Your task to perform on an android device: Open calendar and show me the fourth week of next month Image 0: 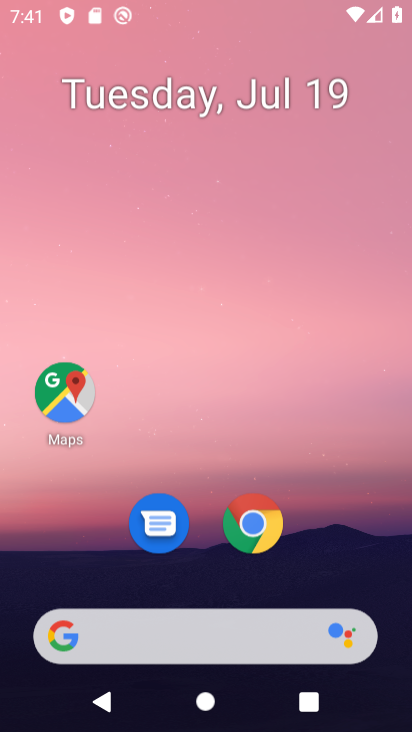
Step 0: click (161, 649)
Your task to perform on an android device: Open calendar and show me the fourth week of next month Image 1: 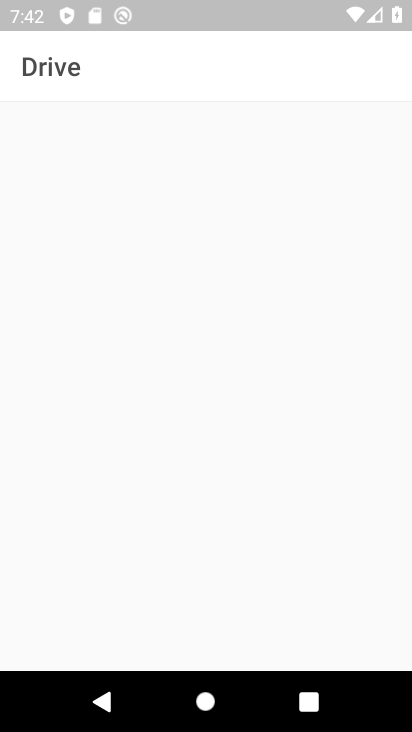
Step 1: press home button
Your task to perform on an android device: Open calendar and show me the fourth week of next month Image 2: 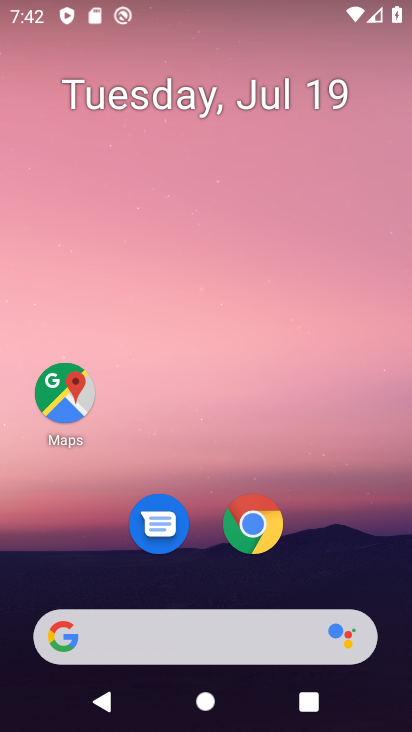
Step 2: drag from (308, 567) to (296, 0)
Your task to perform on an android device: Open calendar and show me the fourth week of next month Image 3: 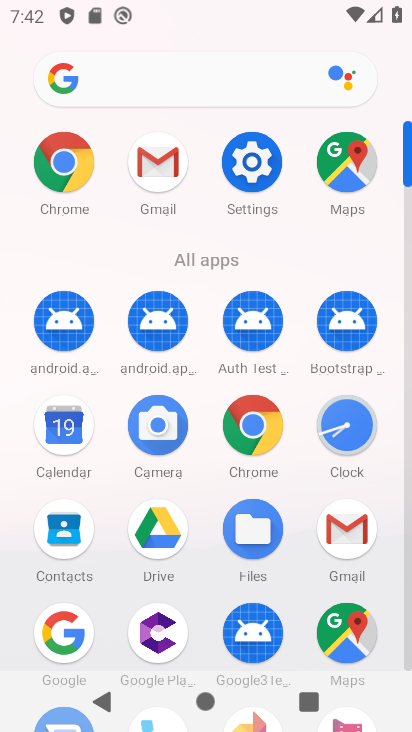
Step 3: click (59, 428)
Your task to perform on an android device: Open calendar and show me the fourth week of next month Image 4: 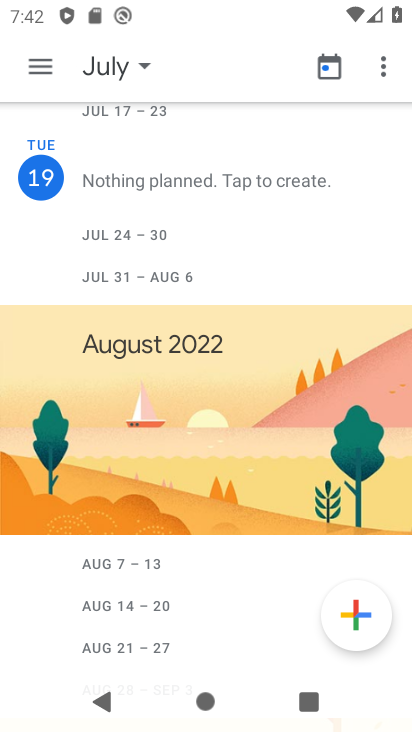
Step 4: click (48, 70)
Your task to perform on an android device: Open calendar and show me the fourth week of next month Image 5: 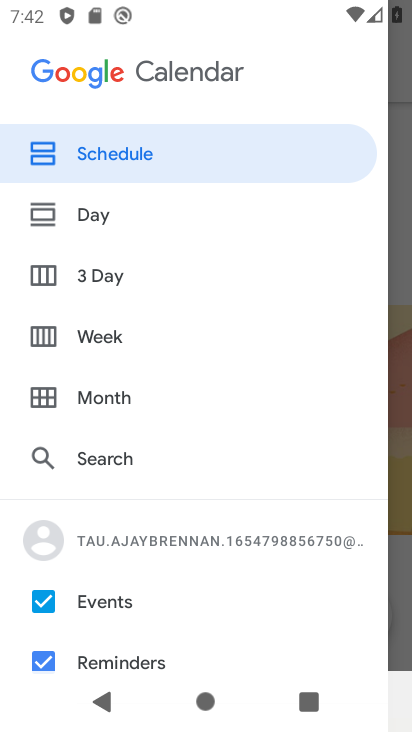
Step 5: click (43, 393)
Your task to perform on an android device: Open calendar and show me the fourth week of next month Image 6: 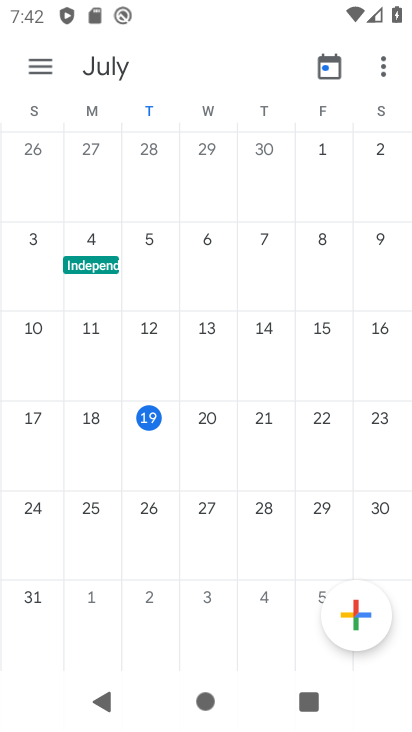
Step 6: drag from (369, 278) to (1, 340)
Your task to perform on an android device: Open calendar and show me the fourth week of next month Image 7: 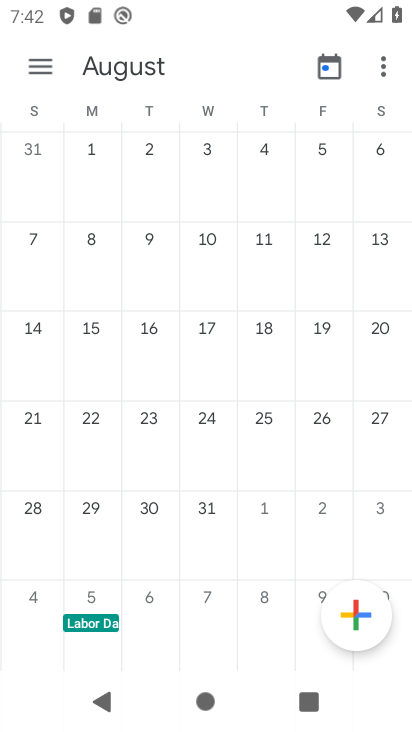
Step 7: click (36, 507)
Your task to perform on an android device: Open calendar and show me the fourth week of next month Image 8: 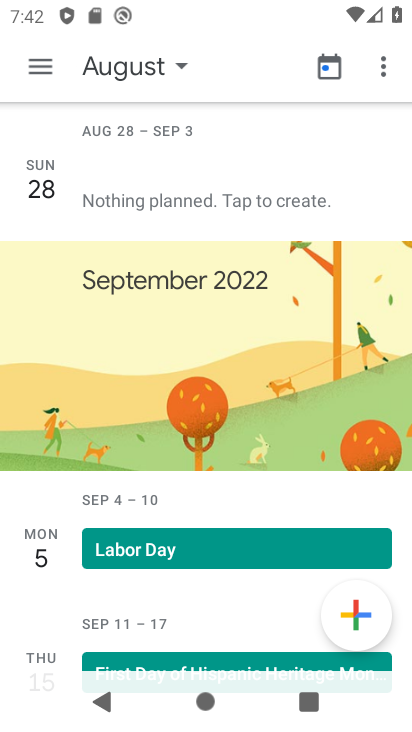
Step 8: click (41, 71)
Your task to perform on an android device: Open calendar and show me the fourth week of next month Image 9: 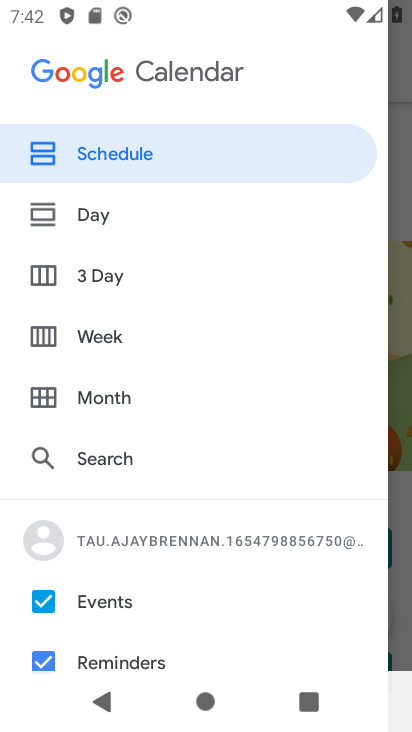
Step 9: click (37, 339)
Your task to perform on an android device: Open calendar and show me the fourth week of next month Image 10: 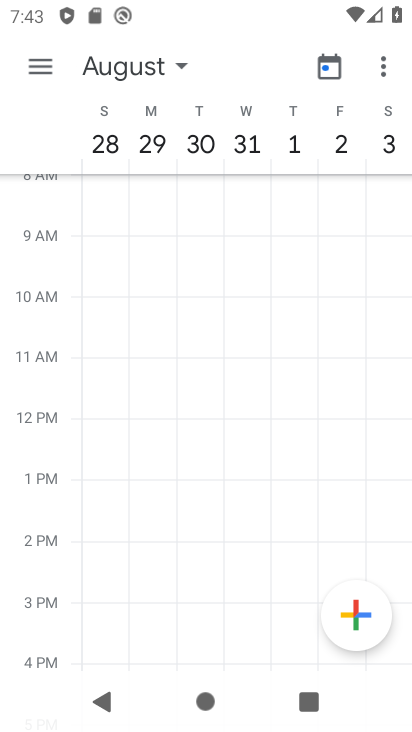
Step 10: task complete